Your task to perform on an android device: open app "Adobe Acrobat Reader: Edit PDF" (install if not already installed) and enter user name: "arthritis@inbox.com" and password: "scythes" Image 0: 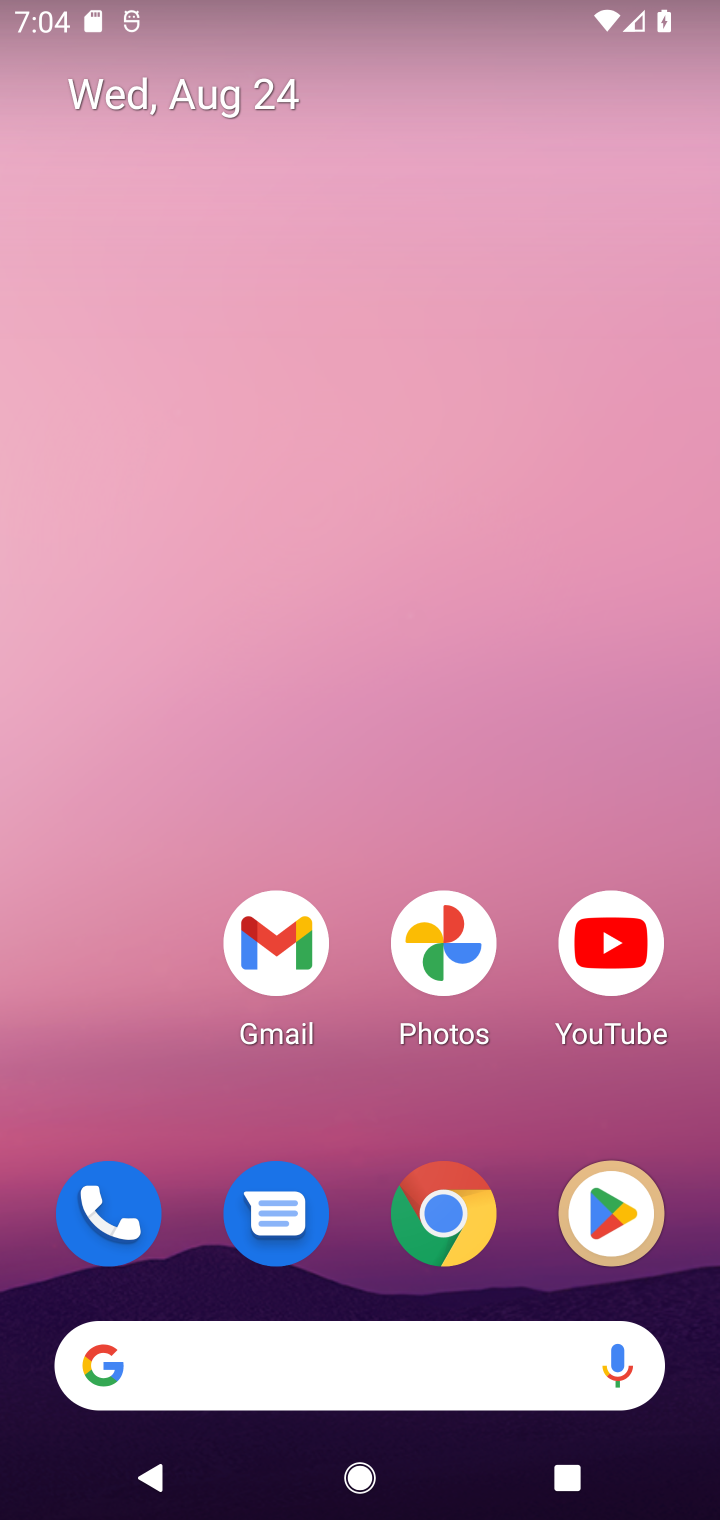
Step 0: press home button
Your task to perform on an android device: open app "Adobe Acrobat Reader: Edit PDF" (install if not already installed) and enter user name: "arthritis@inbox.com" and password: "scythes" Image 1: 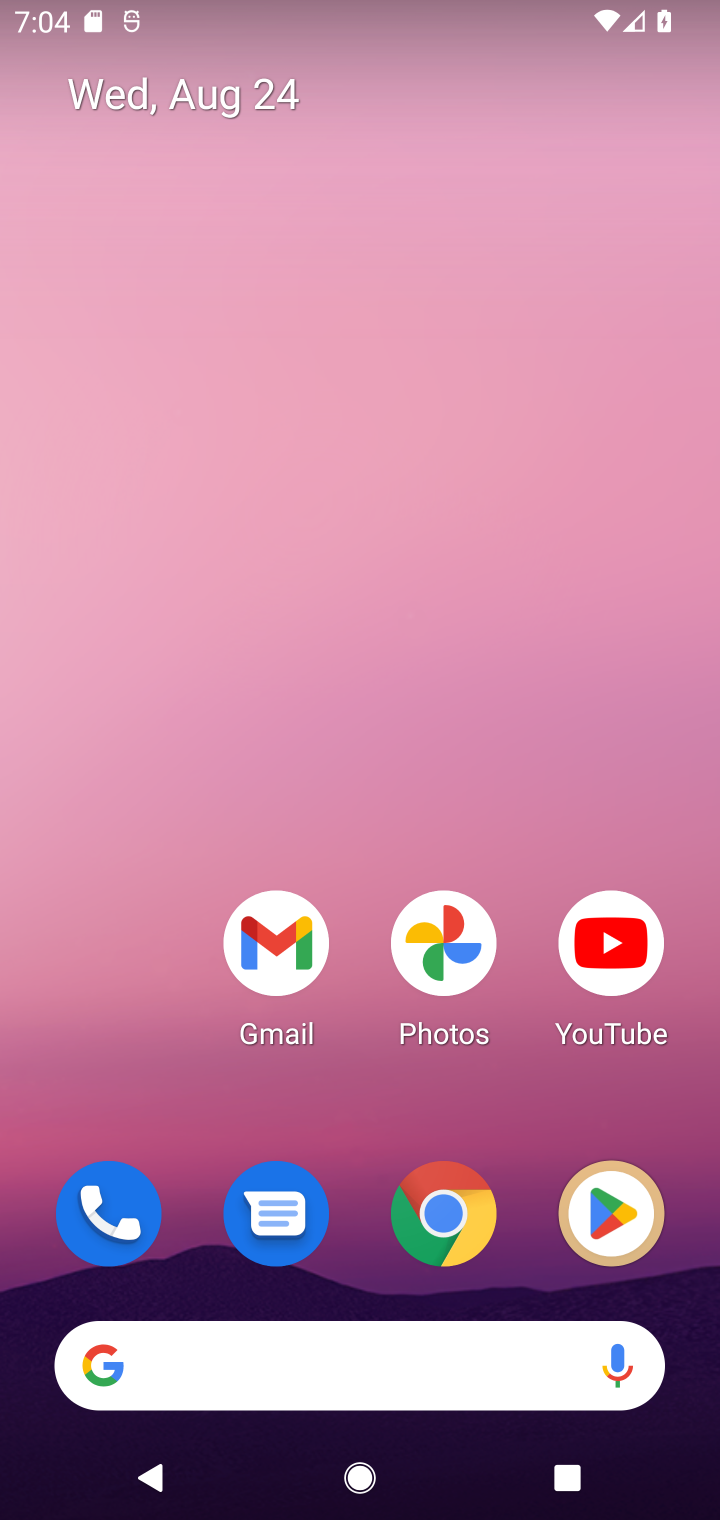
Step 1: click (599, 1203)
Your task to perform on an android device: open app "Adobe Acrobat Reader: Edit PDF" (install if not already installed) and enter user name: "arthritis@inbox.com" and password: "scythes" Image 2: 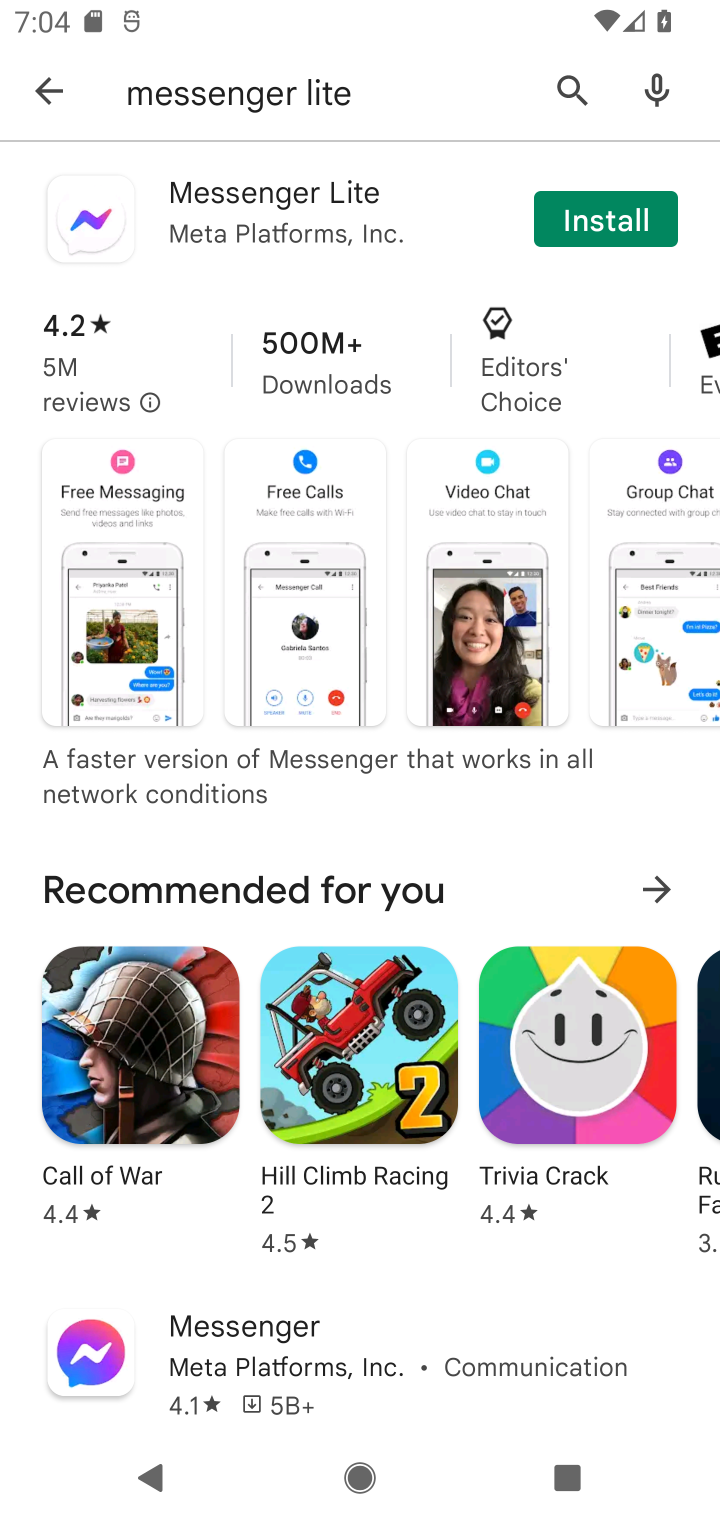
Step 2: click (573, 85)
Your task to perform on an android device: open app "Adobe Acrobat Reader: Edit PDF" (install if not already installed) and enter user name: "arthritis@inbox.com" and password: "scythes" Image 3: 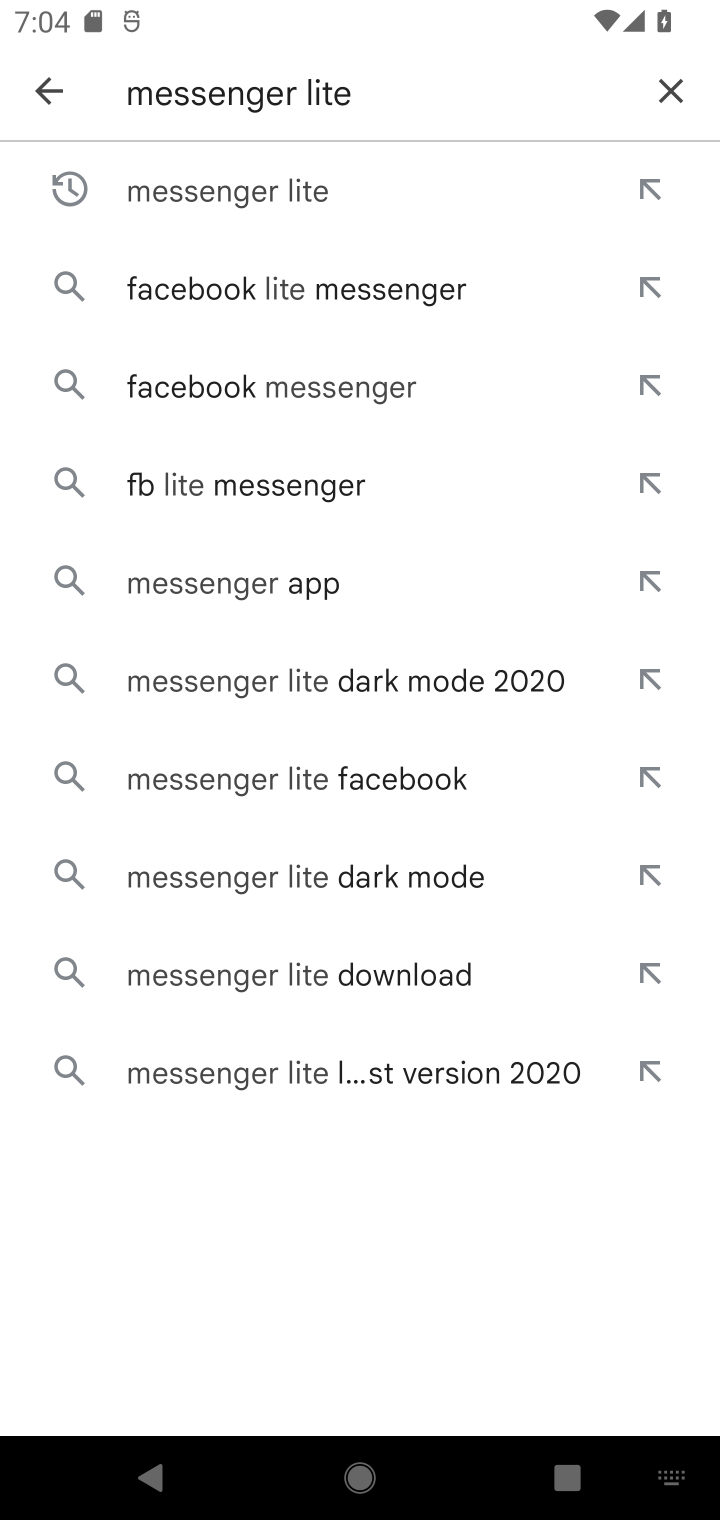
Step 3: click (673, 95)
Your task to perform on an android device: open app "Adobe Acrobat Reader: Edit PDF" (install if not already installed) and enter user name: "arthritis@inbox.com" and password: "scythes" Image 4: 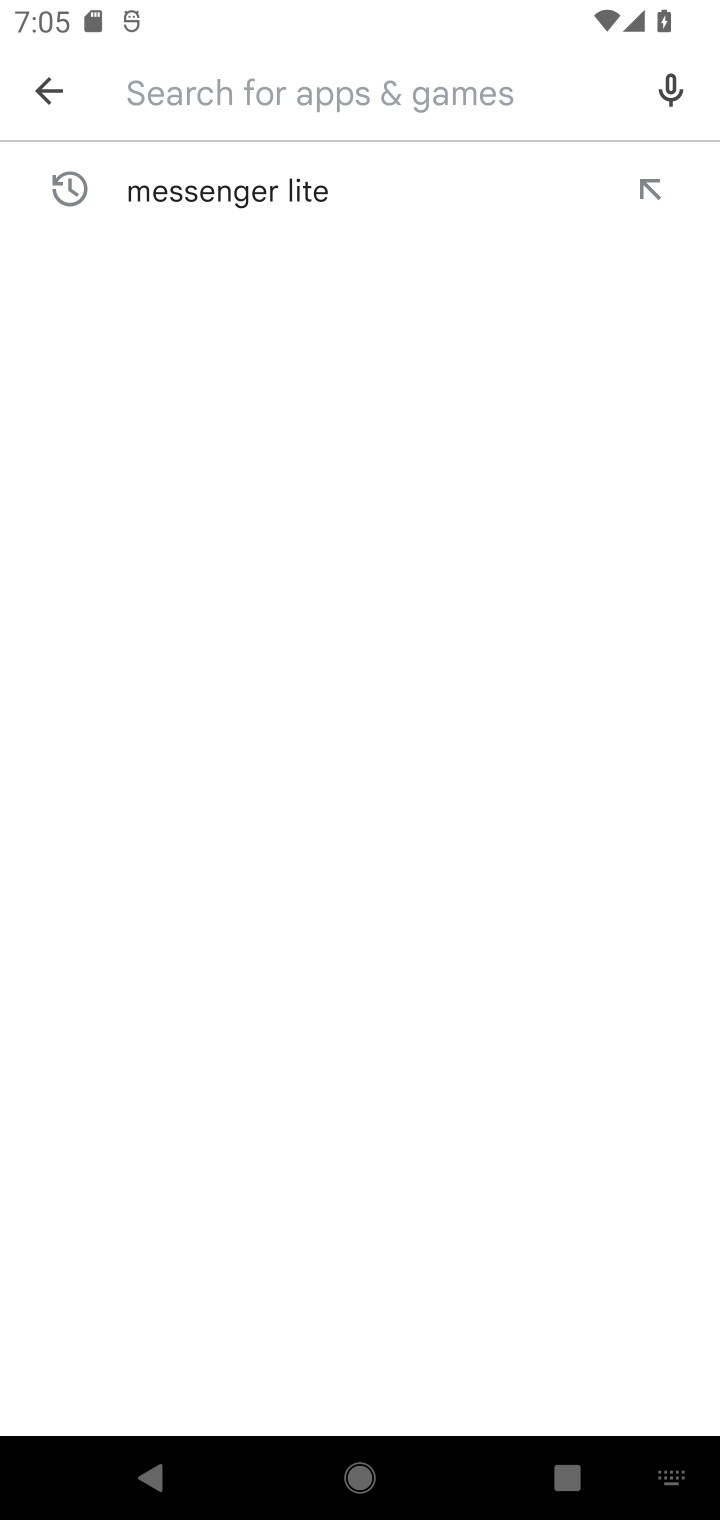
Step 4: type "Adobe Acrobat Reader: Edit PDF"
Your task to perform on an android device: open app "Adobe Acrobat Reader: Edit PDF" (install if not already installed) and enter user name: "arthritis@inbox.com" and password: "scythes" Image 5: 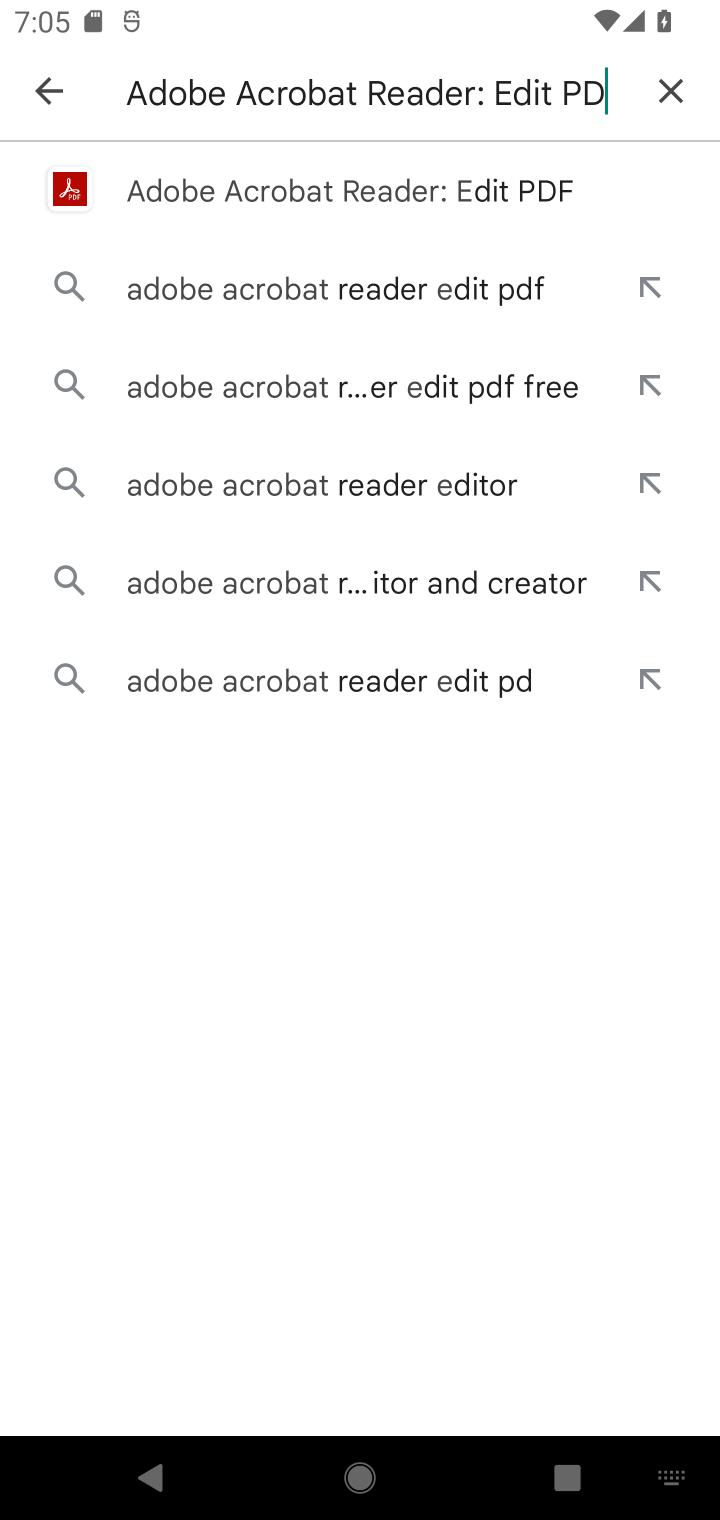
Step 5: type ""
Your task to perform on an android device: open app "Adobe Acrobat Reader: Edit PDF" (install if not already installed) and enter user name: "arthritis@inbox.com" and password: "scythes" Image 6: 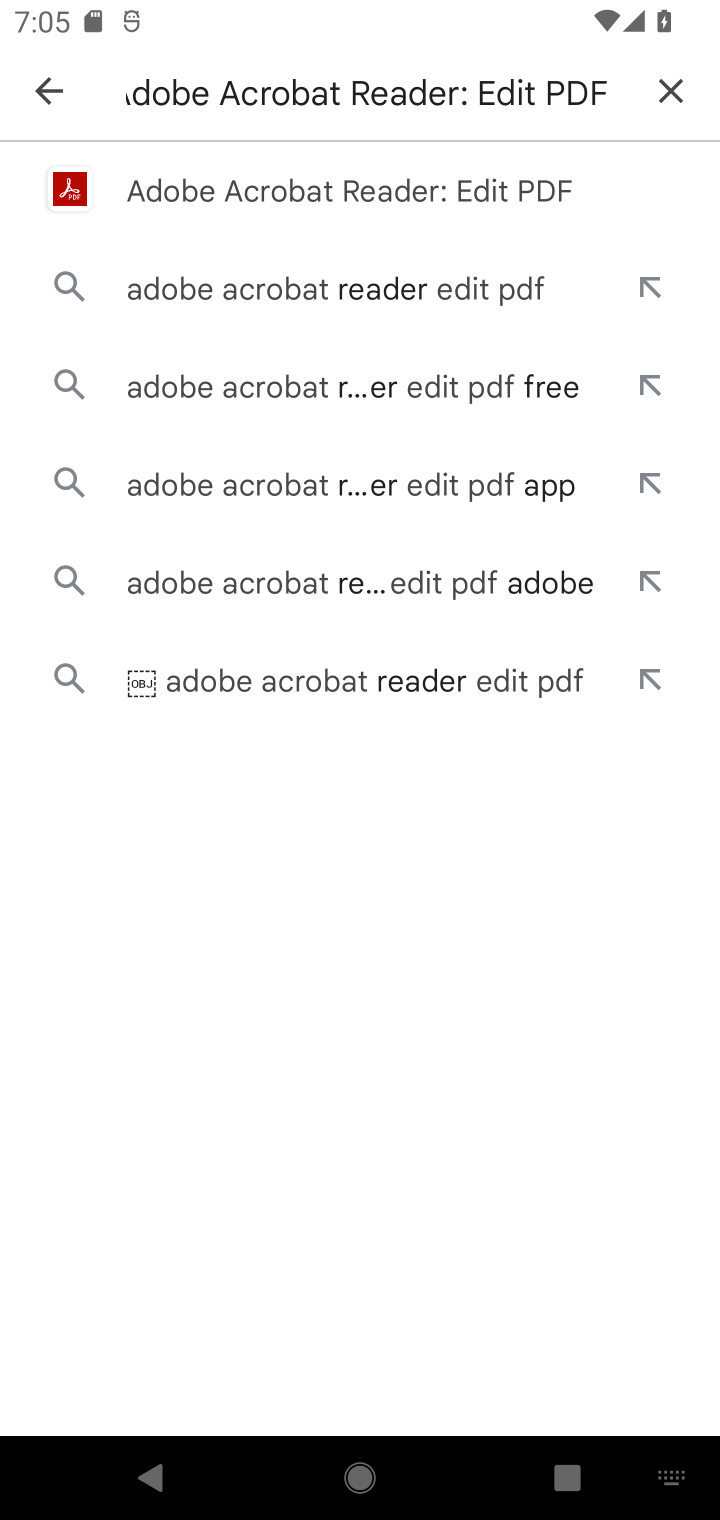
Step 6: click (351, 202)
Your task to perform on an android device: open app "Adobe Acrobat Reader: Edit PDF" (install if not already installed) and enter user name: "arthritis@inbox.com" and password: "scythes" Image 7: 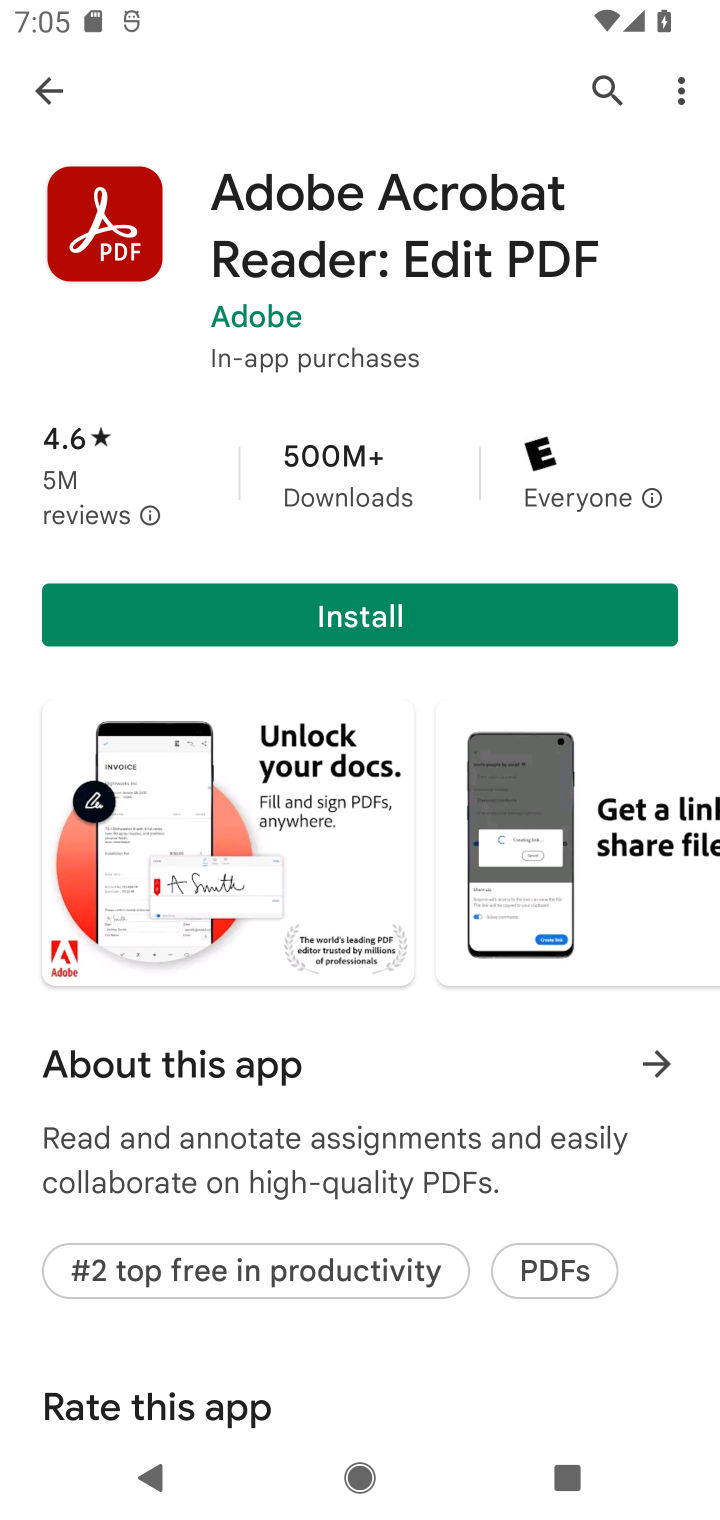
Step 7: click (366, 606)
Your task to perform on an android device: open app "Adobe Acrobat Reader: Edit PDF" (install if not already installed) and enter user name: "arthritis@inbox.com" and password: "scythes" Image 8: 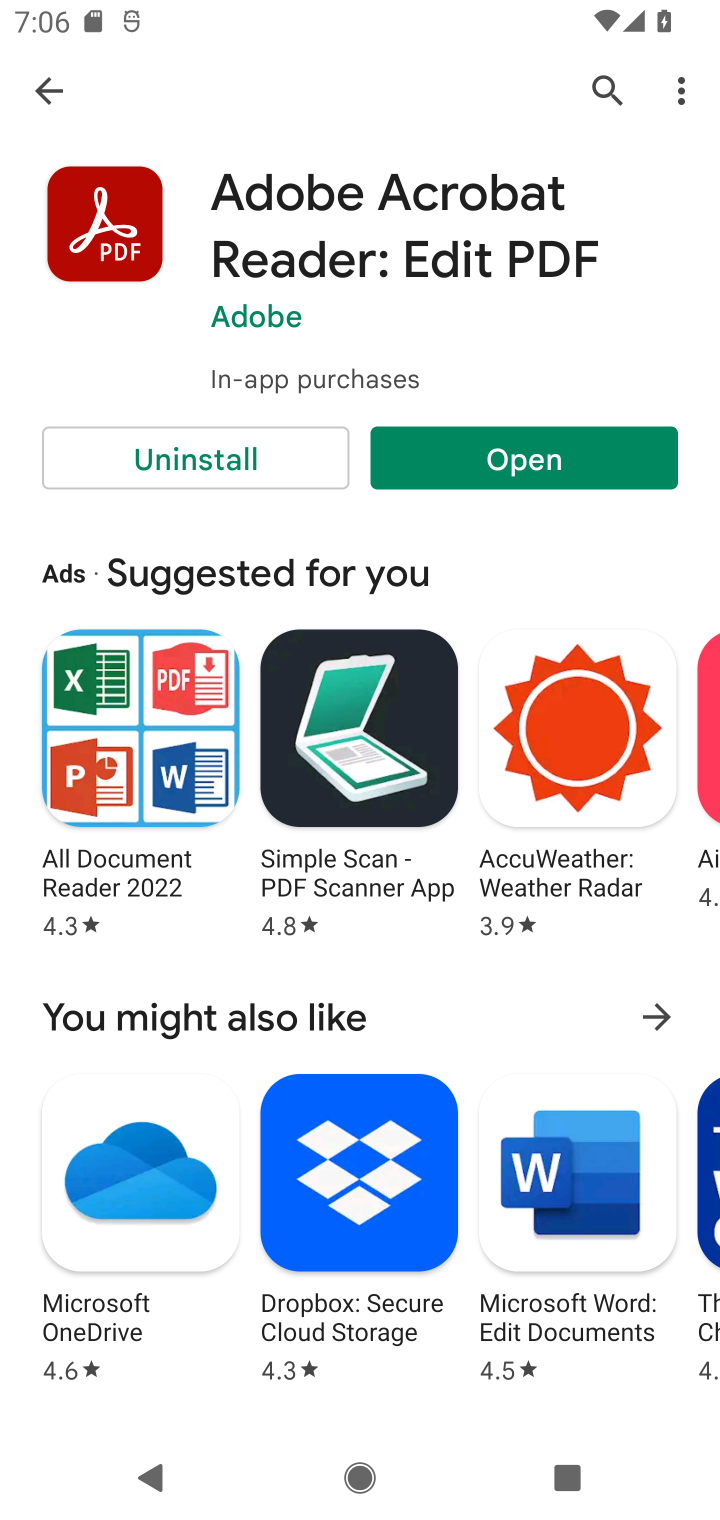
Step 8: click (524, 459)
Your task to perform on an android device: open app "Adobe Acrobat Reader: Edit PDF" (install if not already installed) and enter user name: "arthritis@inbox.com" and password: "scythes" Image 9: 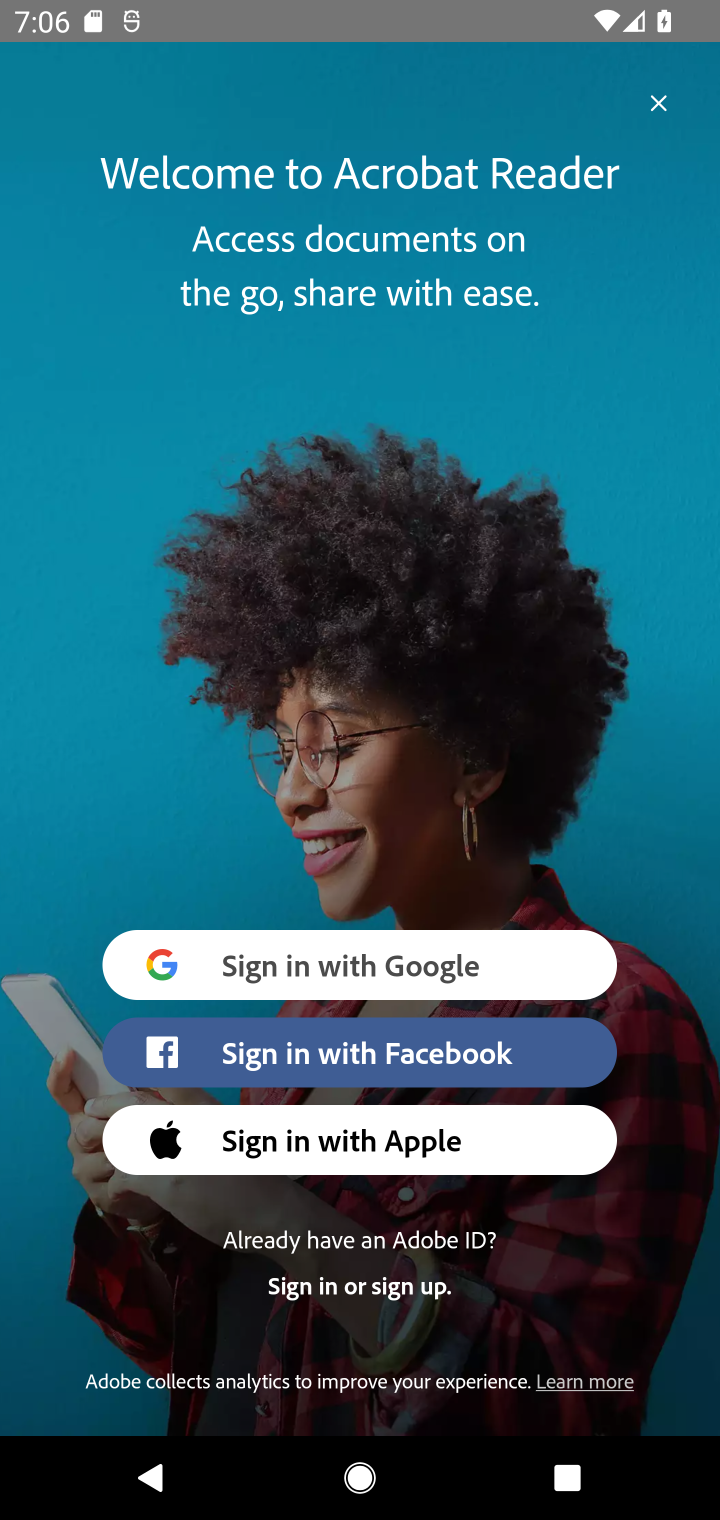
Step 9: click (313, 1282)
Your task to perform on an android device: open app "Adobe Acrobat Reader: Edit PDF" (install if not already installed) and enter user name: "arthritis@inbox.com" and password: "scythes" Image 10: 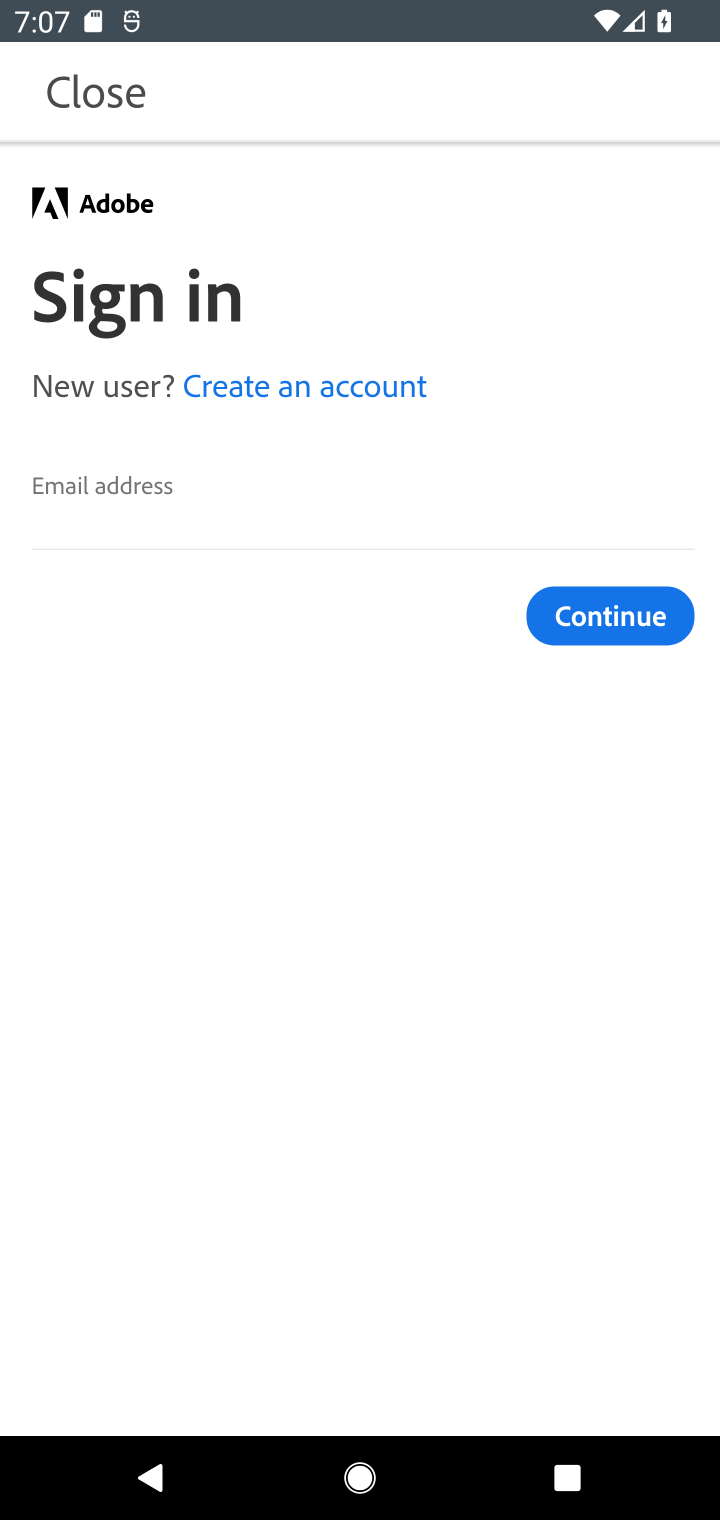
Step 10: click (86, 99)
Your task to perform on an android device: open app "Adobe Acrobat Reader: Edit PDF" (install if not already installed) and enter user name: "arthritis@inbox.com" and password: "scythes" Image 11: 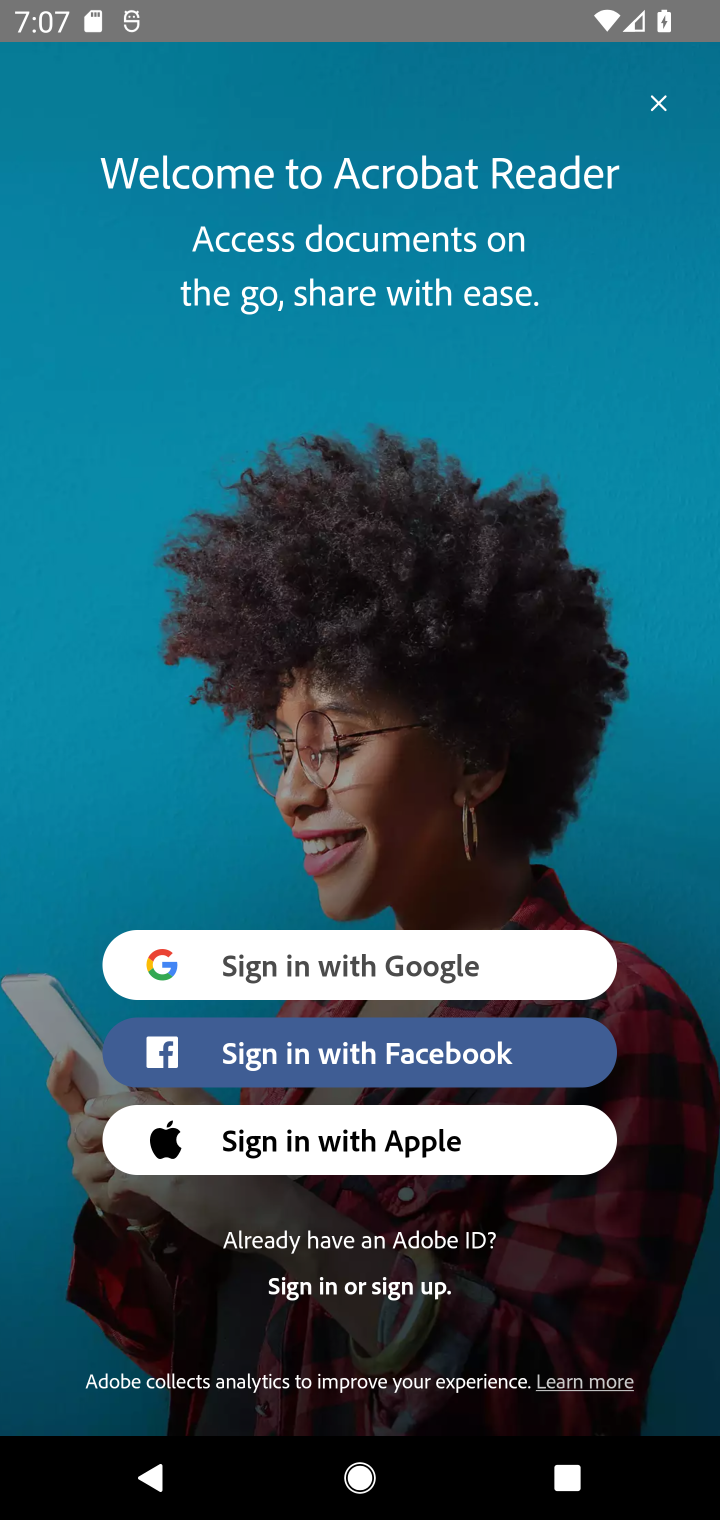
Step 11: click (279, 1285)
Your task to perform on an android device: open app "Adobe Acrobat Reader: Edit PDF" (install if not already installed) and enter user name: "arthritis@inbox.com" and password: "scythes" Image 12: 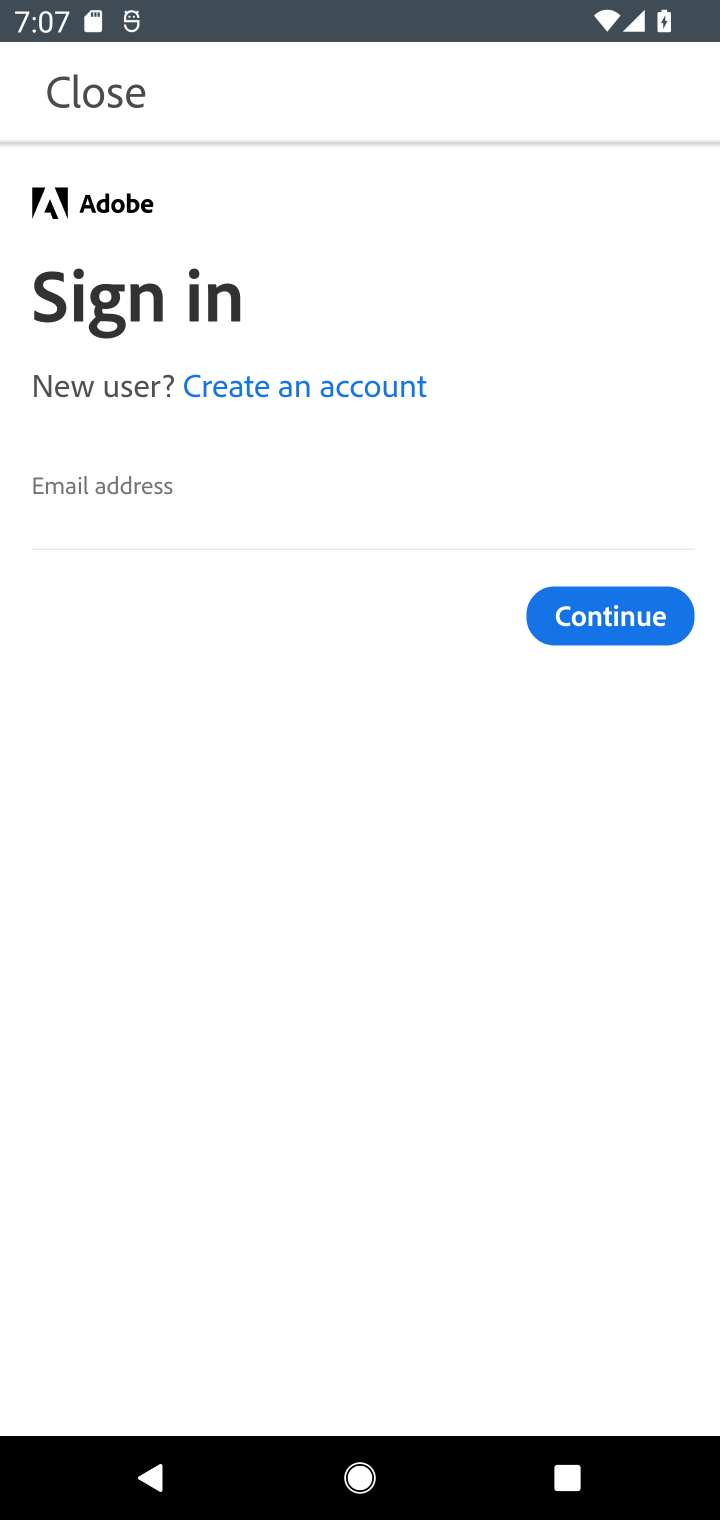
Step 12: task complete